Your task to perform on an android device: Open notification settings Image 0: 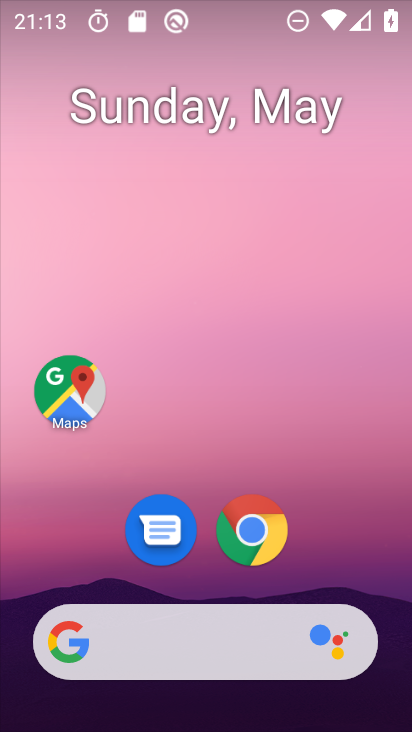
Step 0: drag from (193, 663) to (392, 13)
Your task to perform on an android device: Open notification settings Image 1: 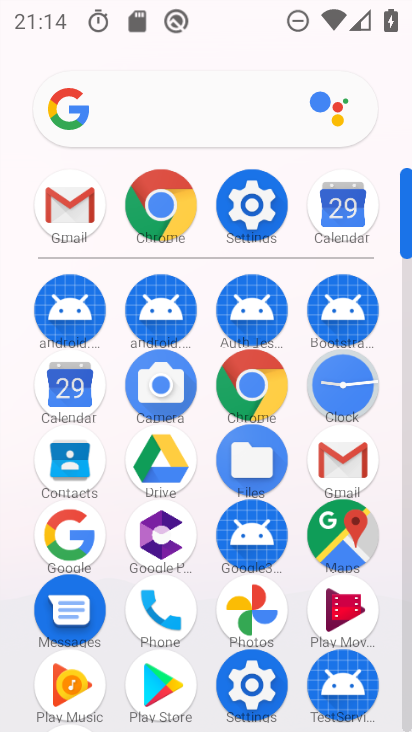
Step 1: click (272, 211)
Your task to perform on an android device: Open notification settings Image 2: 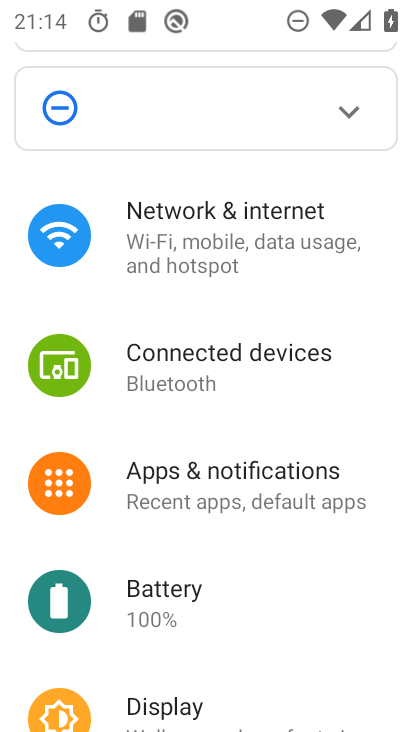
Step 2: drag from (183, 80) to (82, 324)
Your task to perform on an android device: Open notification settings Image 3: 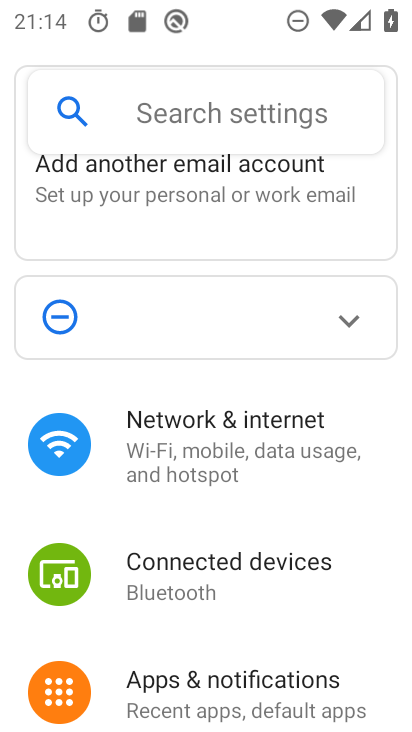
Step 3: click (139, 97)
Your task to perform on an android device: Open notification settings Image 4: 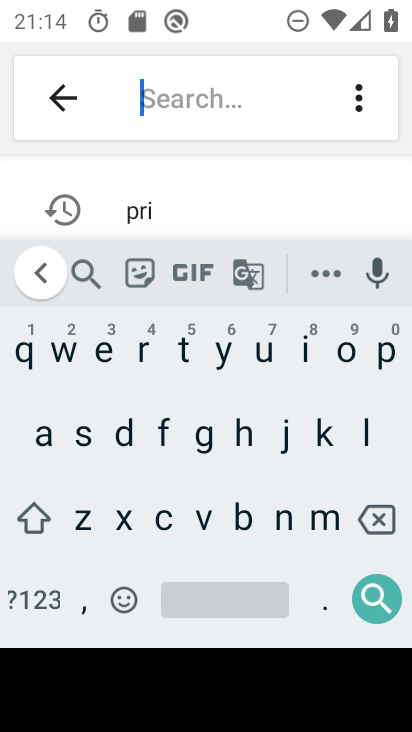
Step 4: click (284, 522)
Your task to perform on an android device: Open notification settings Image 5: 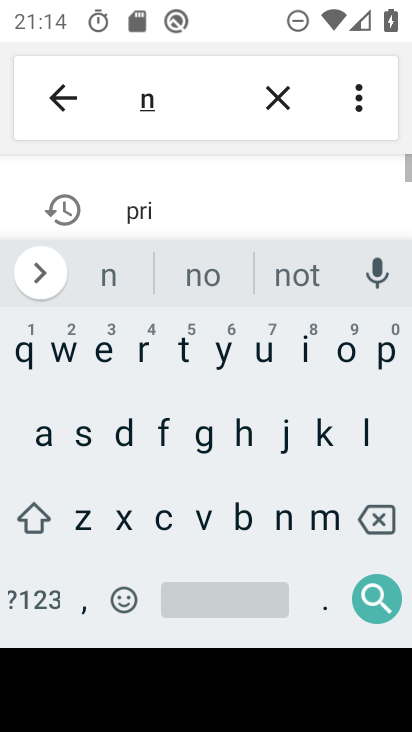
Step 5: click (349, 349)
Your task to perform on an android device: Open notification settings Image 6: 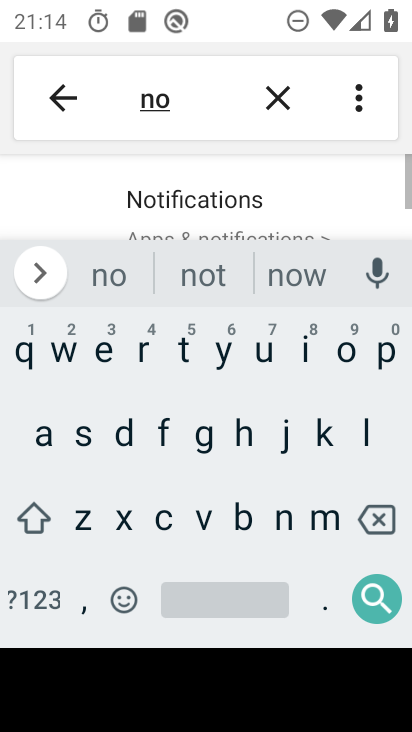
Step 6: click (157, 224)
Your task to perform on an android device: Open notification settings Image 7: 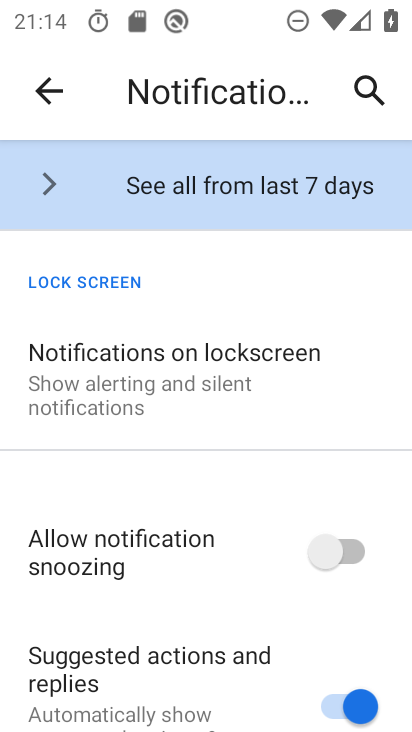
Step 7: click (122, 379)
Your task to perform on an android device: Open notification settings Image 8: 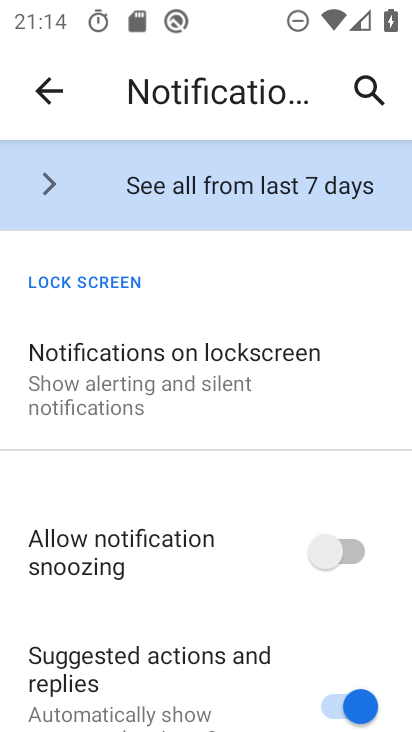
Step 8: click (159, 386)
Your task to perform on an android device: Open notification settings Image 9: 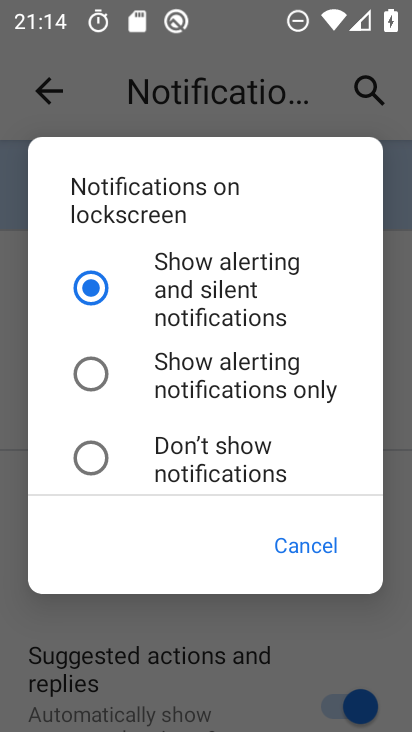
Step 9: task complete